Your task to perform on an android device: open device folders in google photos Image 0: 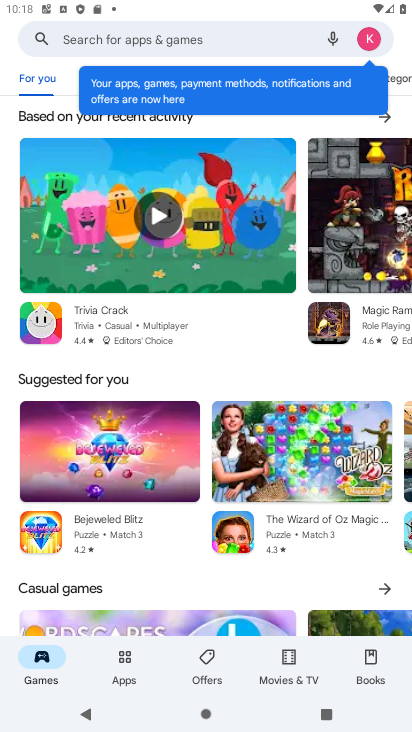
Step 0: press home button
Your task to perform on an android device: open device folders in google photos Image 1: 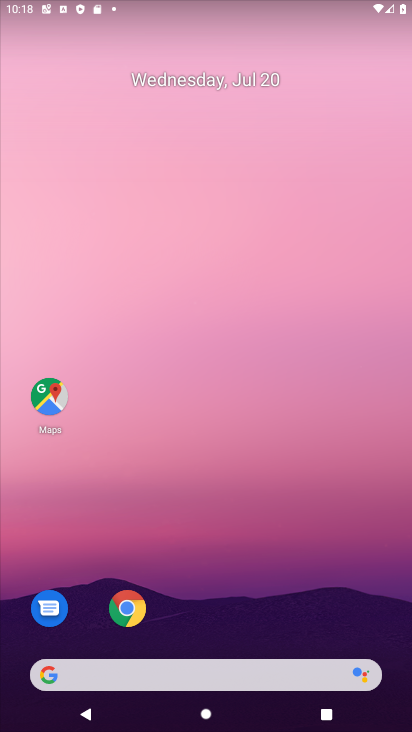
Step 1: drag from (256, 513) to (288, 106)
Your task to perform on an android device: open device folders in google photos Image 2: 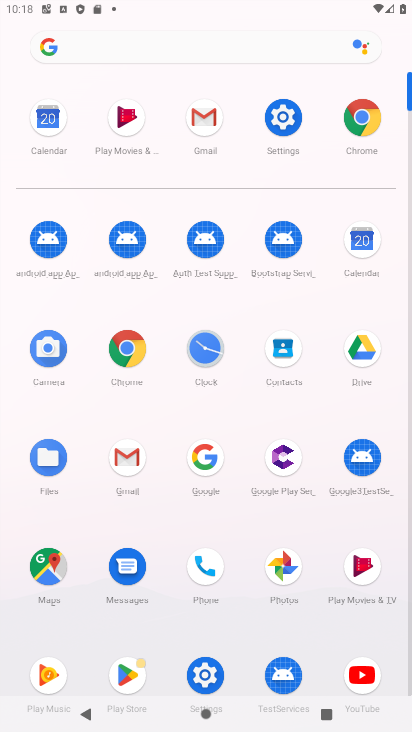
Step 2: click (272, 574)
Your task to perform on an android device: open device folders in google photos Image 3: 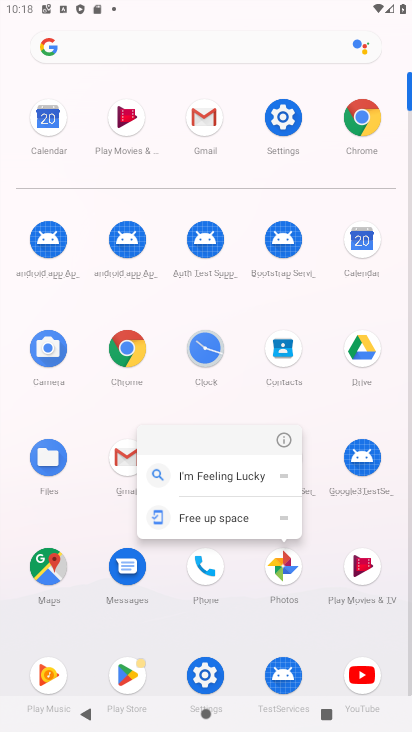
Step 3: click (293, 586)
Your task to perform on an android device: open device folders in google photos Image 4: 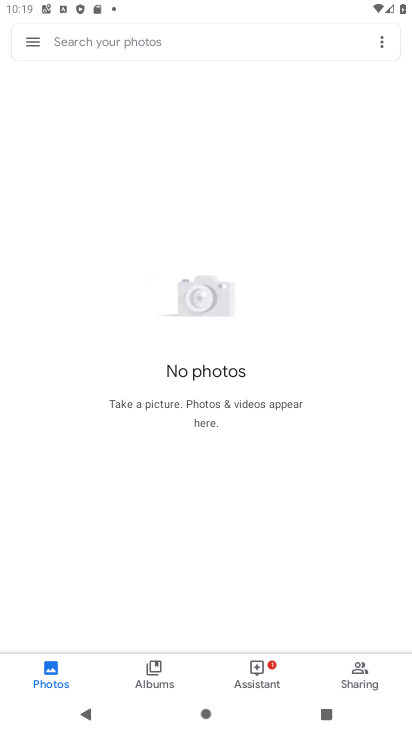
Step 4: click (31, 51)
Your task to perform on an android device: open device folders in google photos Image 5: 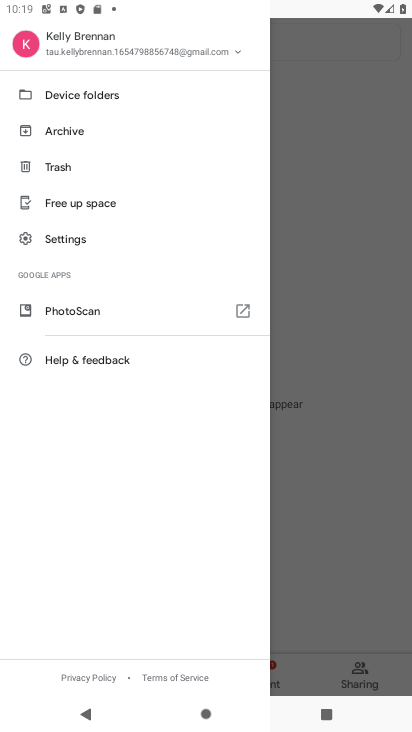
Step 5: click (111, 99)
Your task to perform on an android device: open device folders in google photos Image 6: 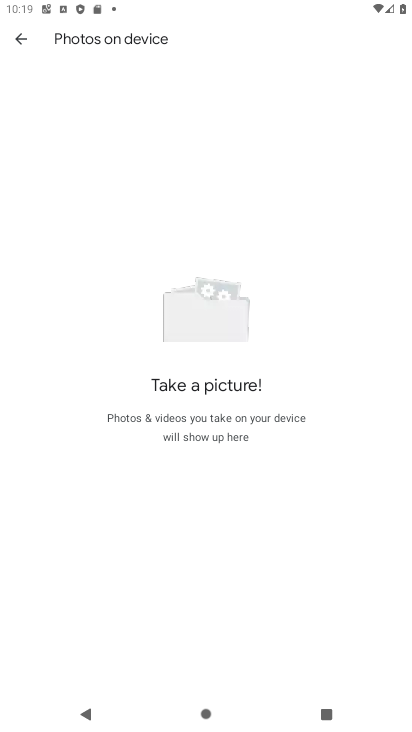
Step 6: task complete